Your task to perform on an android device: Open the map Image 0: 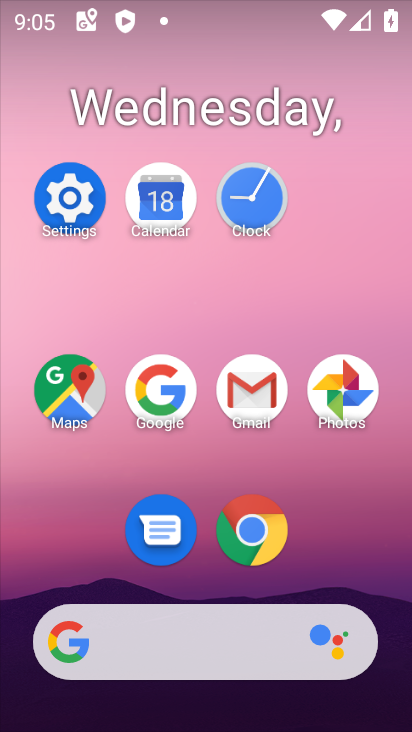
Step 0: click (73, 382)
Your task to perform on an android device: Open the map Image 1: 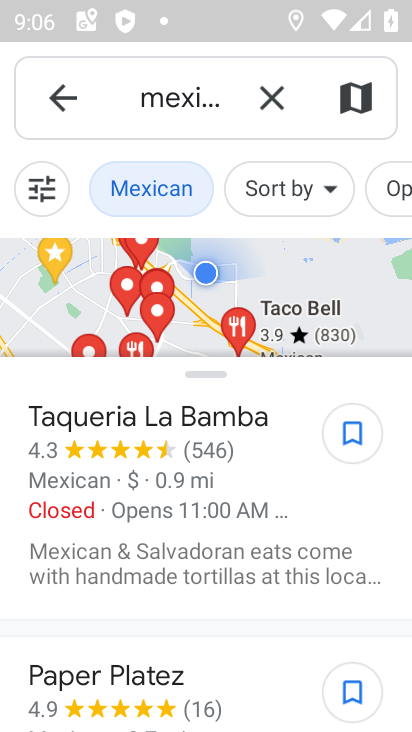
Step 1: task complete